Your task to perform on an android device: turn on sleep mode Image 0: 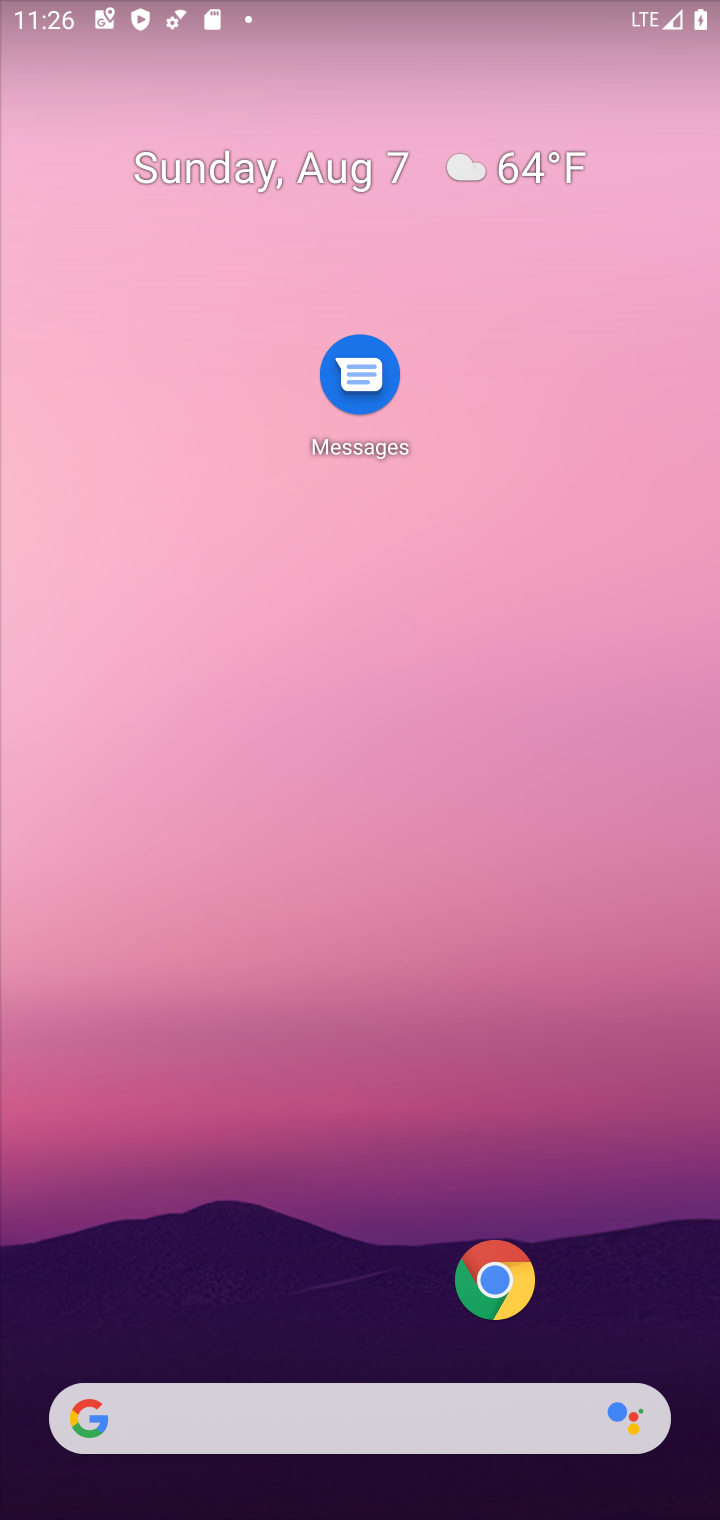
Step 0: drag from (289, 1013) to (416, 114)
Your task to perform on an android device: turn on sleep mode Image 1: 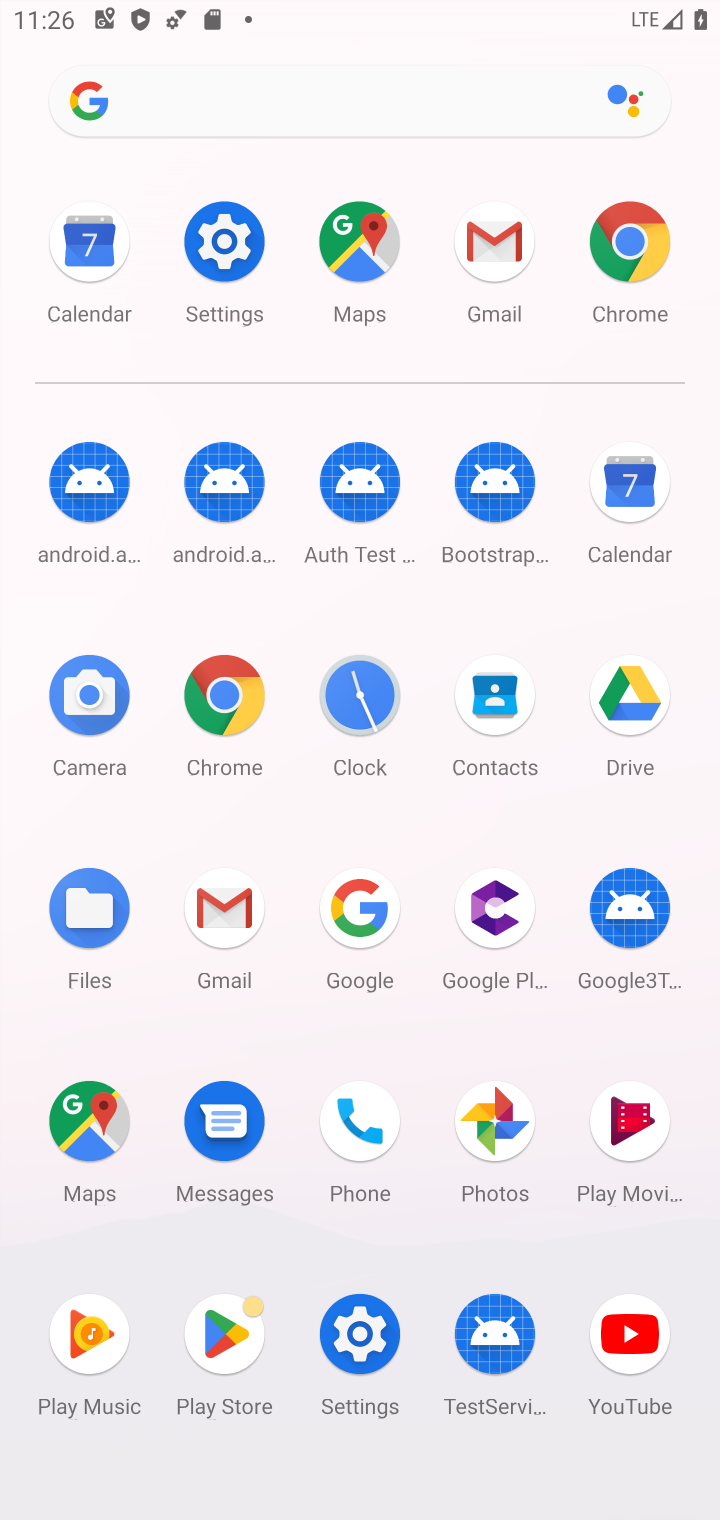
Step 1: click (216, 235)
Your task to perform on an android device: turn on sleep mode Image 2: 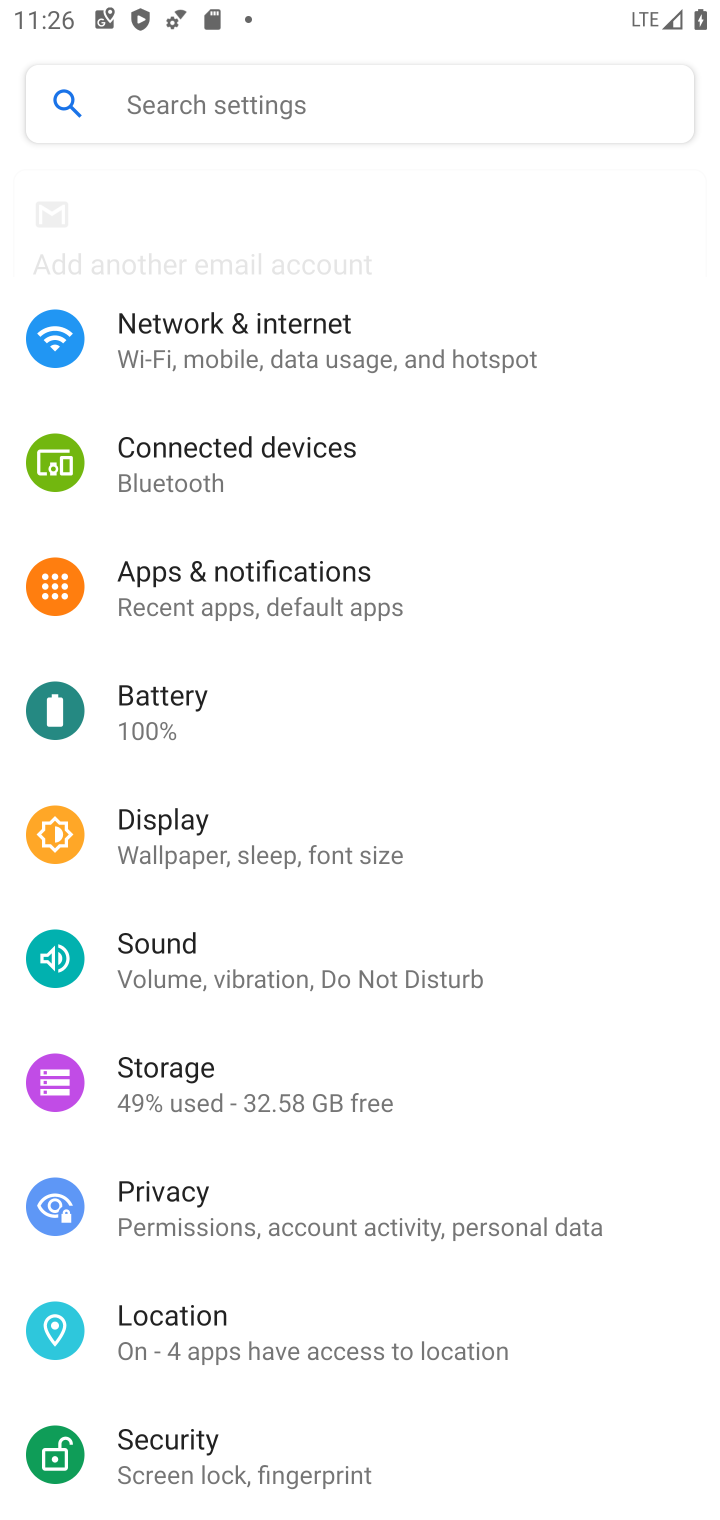
Step 2: click (303, 86)
Your task to perform on an android device: turn on sleep mode Image 3: 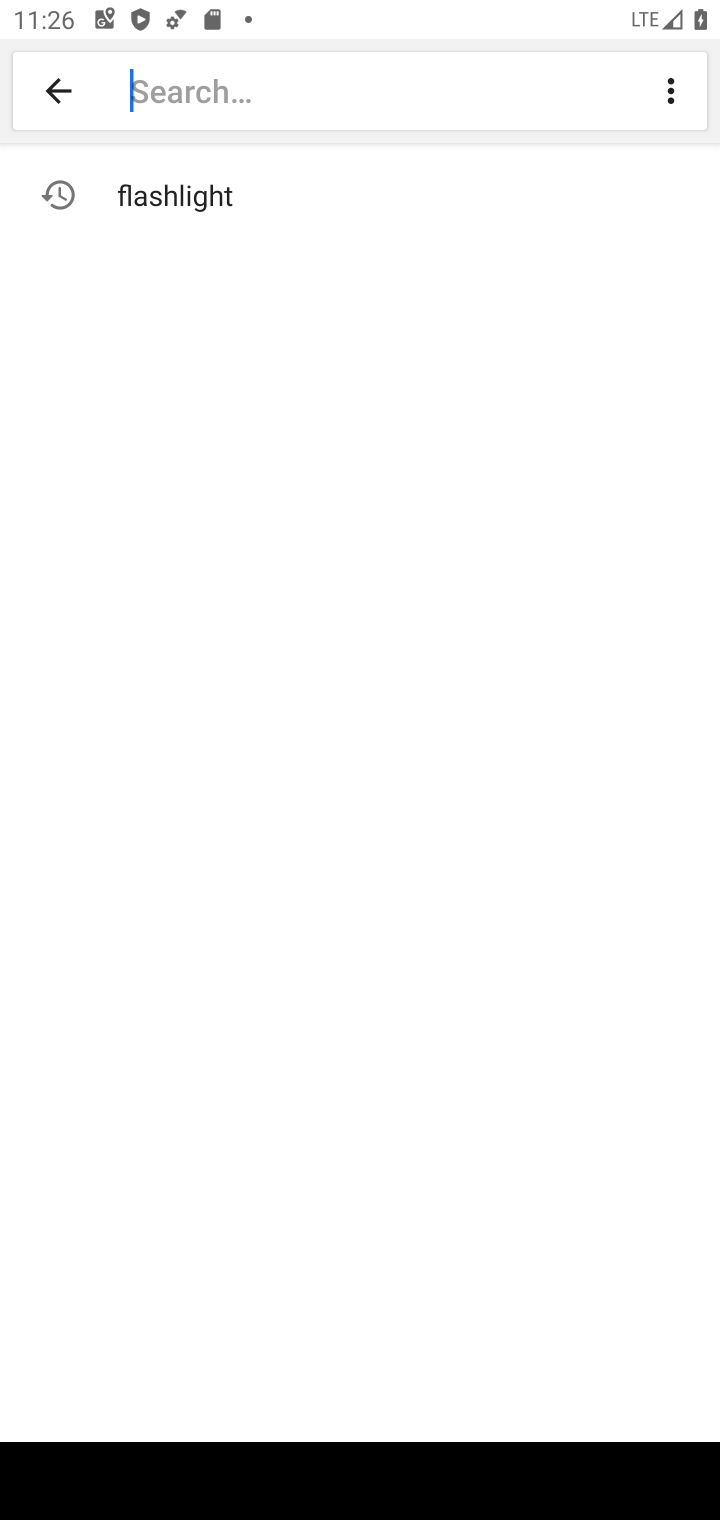
Step 3: type "sleep mode"
Your task to perform on an android device: turn on sleep mode Image 4: 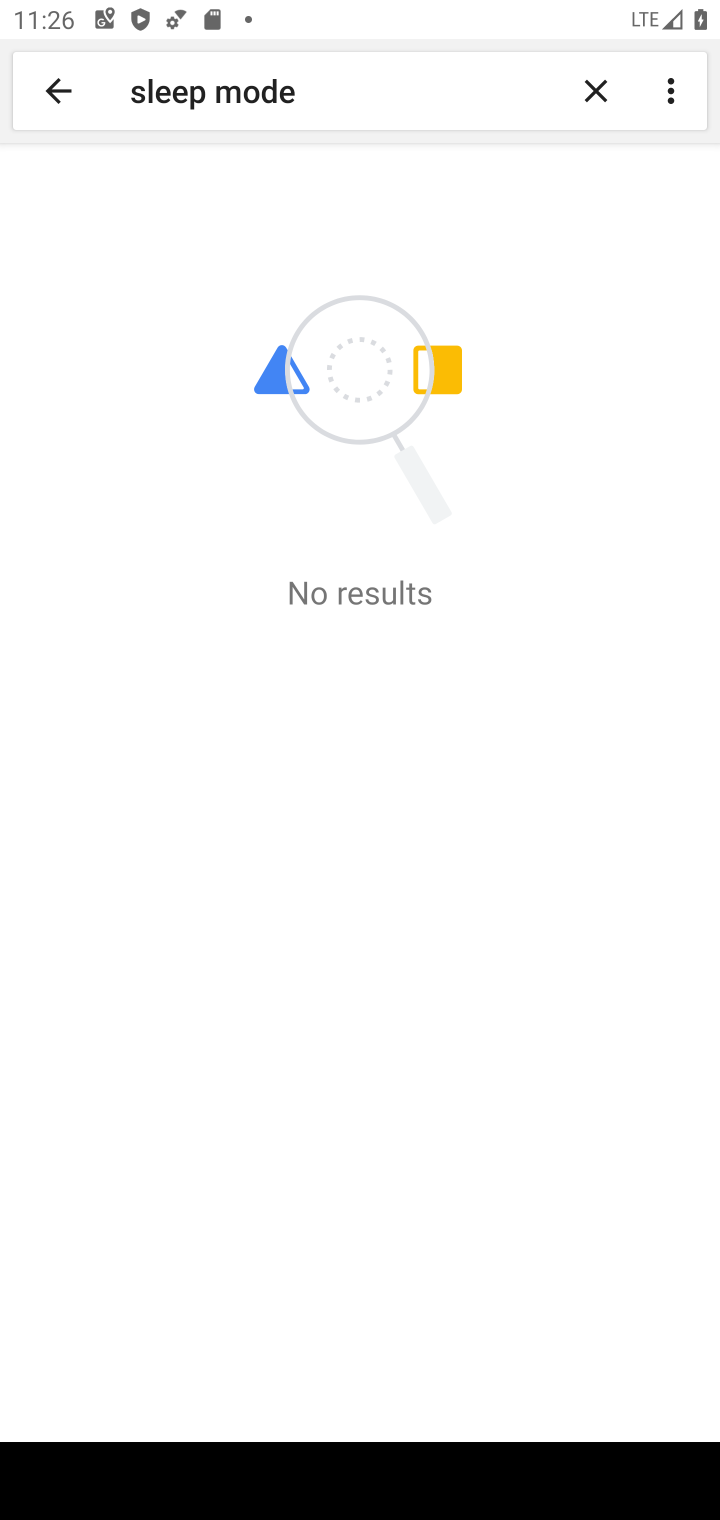
Step 4: task complete